Your task to perform on an android device: Go to accessibility settings Image 0: 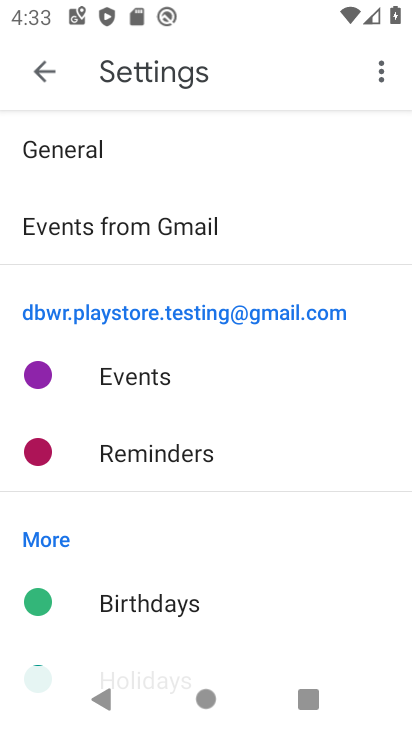
Step 0: press back button
Your task to perform on an android device: Go to accessibility settings Image 1: 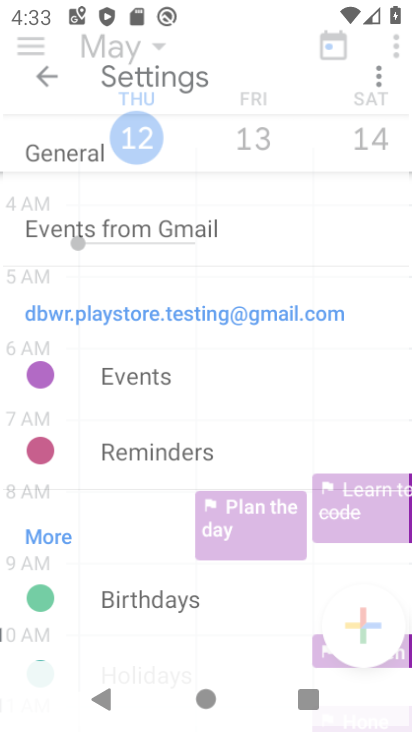
Step 1: press back button
Your task to perform on an android device: Go to accessibility settings Image 2: 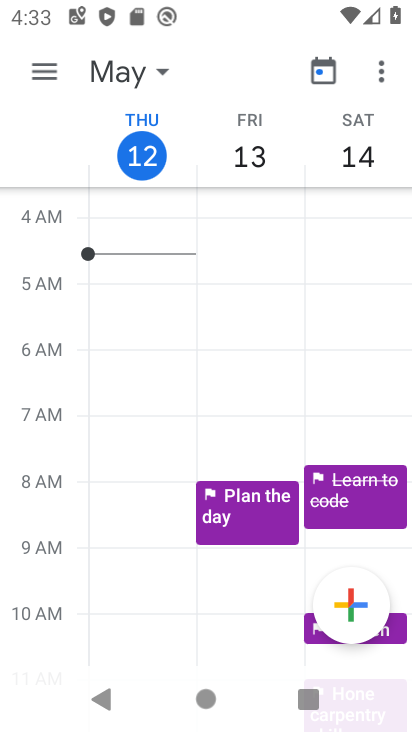
Step 2: press back button
Your task to perform on an android device: Go to accessibility settings Image 3: 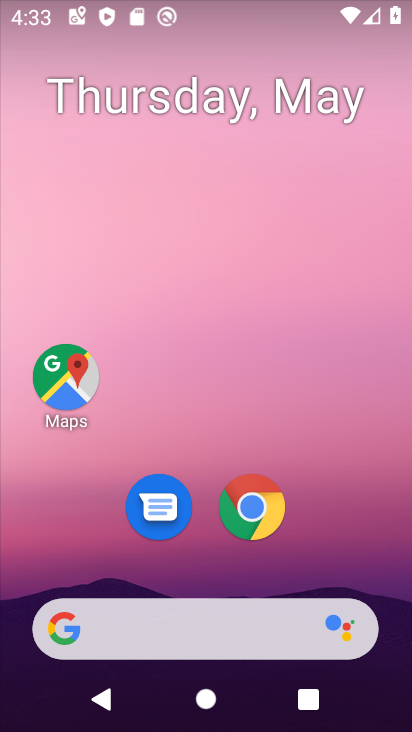
Step 3: press home button
Your task to perform on an android device: Go to accessibility settings Image 4: 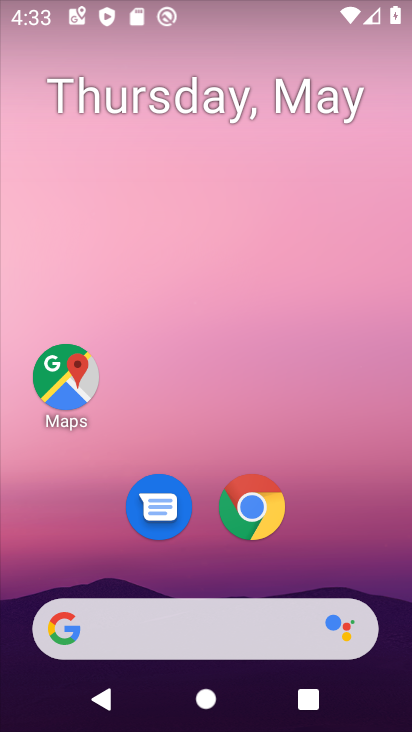
Step 4: drag from (362, 684) to (157, 177)
Your task to perform on an android device: Go to accessibility settings Image 5: 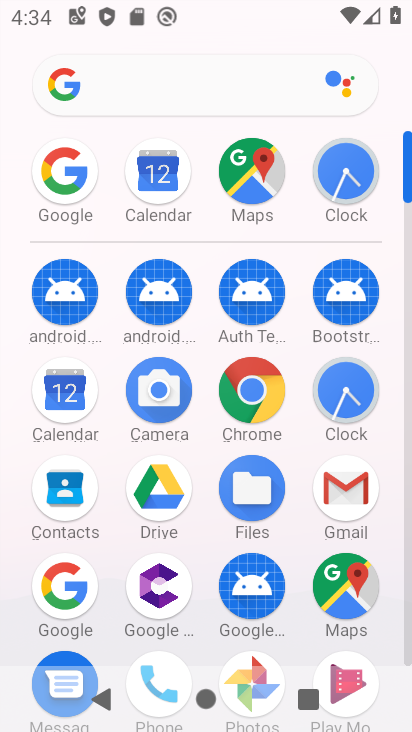
Step 5: click (203, 195)
Your task to perform on an android device: Go to accessibility settings Image 6: 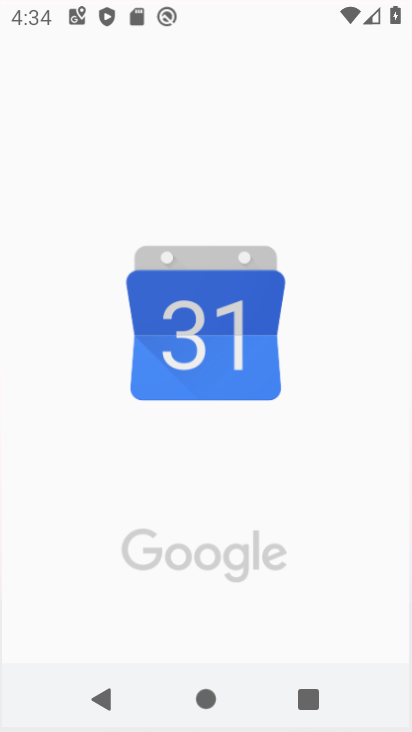
Step 6: click (191, 192)
Your task to perform on an android device: Go to accessibility settings Image 7: 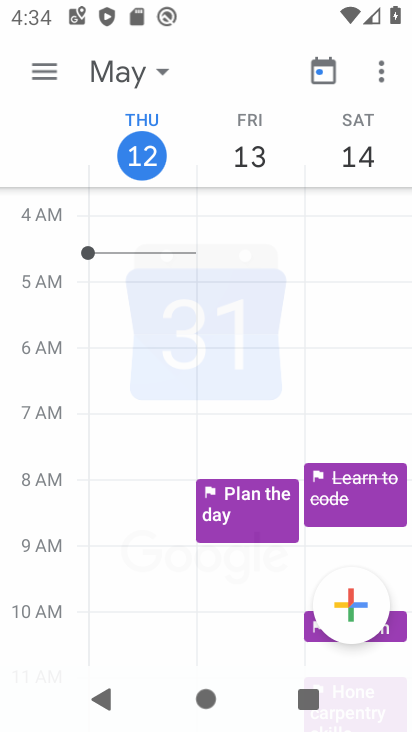
Step 7: drag from (176, 445) to (107, 248)
Your task to perform on an android device: Go to accessibility settings Image 8: 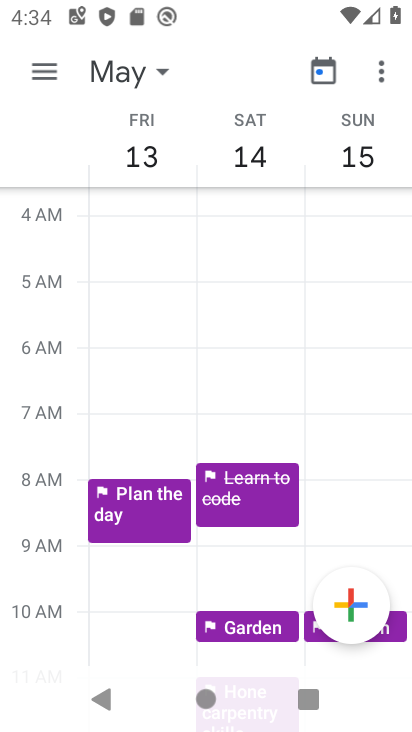
Step 8: press back button
Your task to perform on an android device: Go to accessibility settings Image 9: 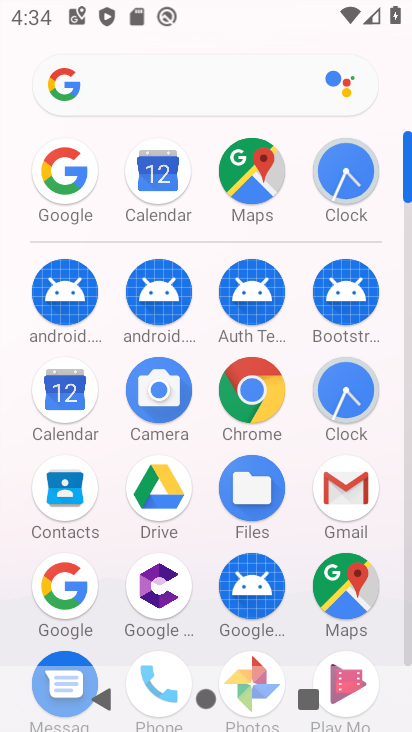
Step 9: drag from (210, 541) to (203, 146)
Your task to perform on an android device: Go to accessibility settings Image 10: 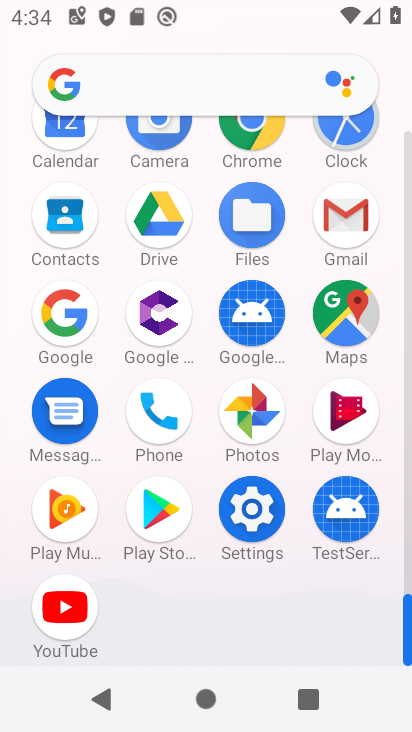
Step 10: click (237, 501)
Your task to perform on an android device: Go to accessibility settings Image 11: 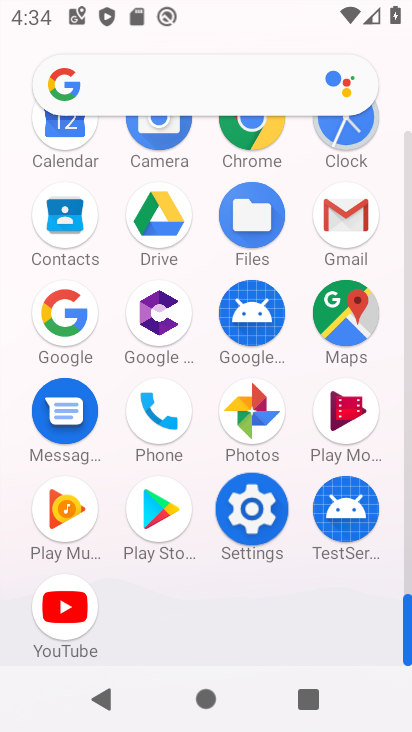
Step 11: click (239, 502)
Your task to perform on an android device: Go to accessibility settings Image 12: 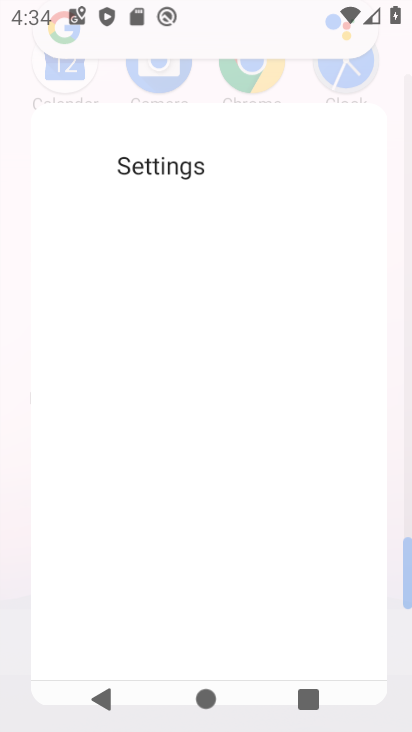
Step 12: click (239, 503)
Your task to perform on an android device: Go to accessibility settings Image 13: 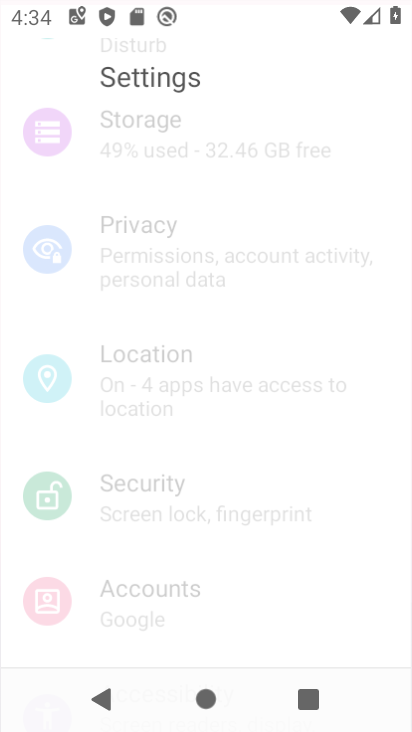
Step 13: click (239, 503)
Your task to perform on an android device: Go to accessibility settings Image 14: 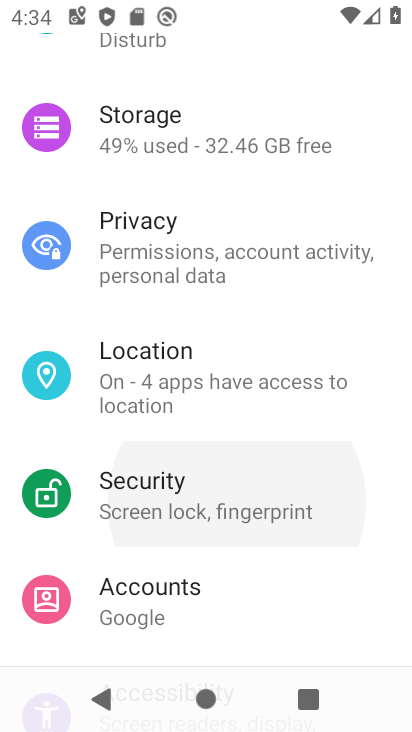
Step 14: click (239, 503)
Your task to perform on an android device: Go to accessibility settings Image 15: 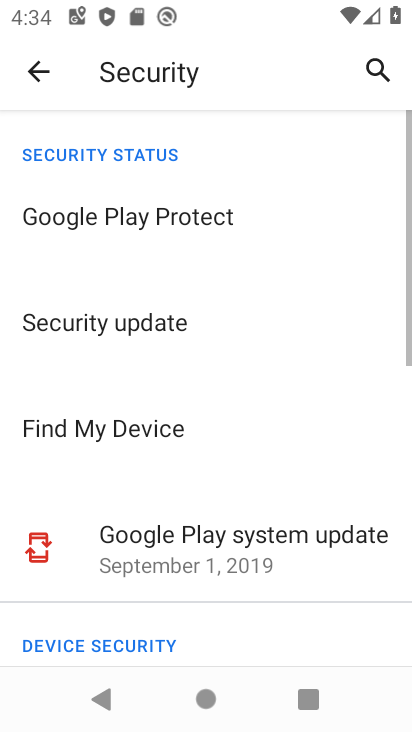
Step 15: drag from (174, 403) to (165, 151)
Your task to perform on an android device: Go to accessibility settings Image 16: 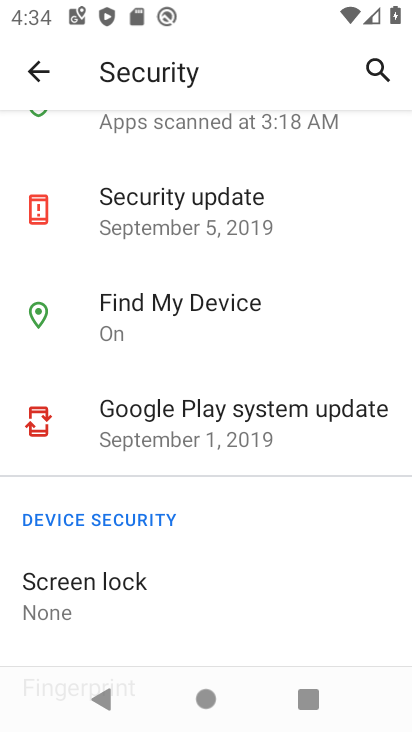
Step 16: click (40, 73)
Your task to perform on an android device: Go to accessibility settings Image 17: 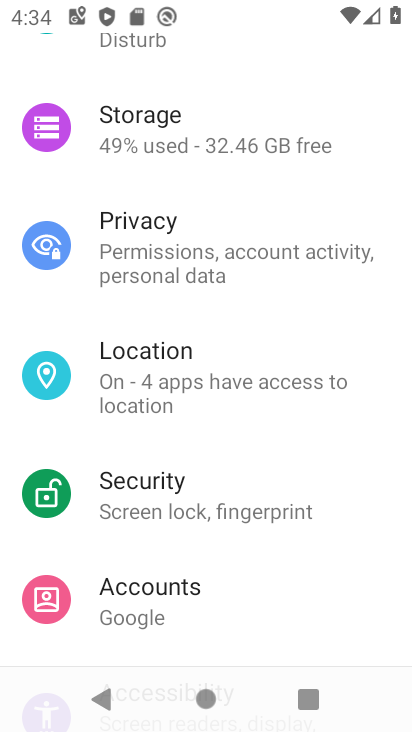
Step 17: drag from (189, 500) to (176, 217)
Your task to perform on an android device: Go to accessibility settings Image 18: 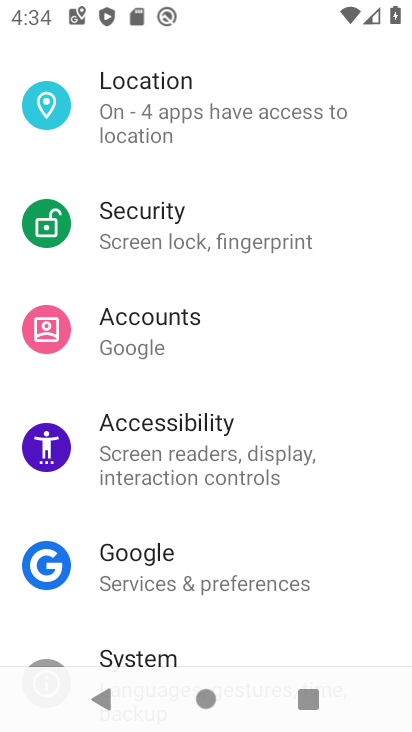
Step 18: drag from (229, 479) to (254, 218)
Your task to perform on an android device: Go to accessibility settings Image 19: 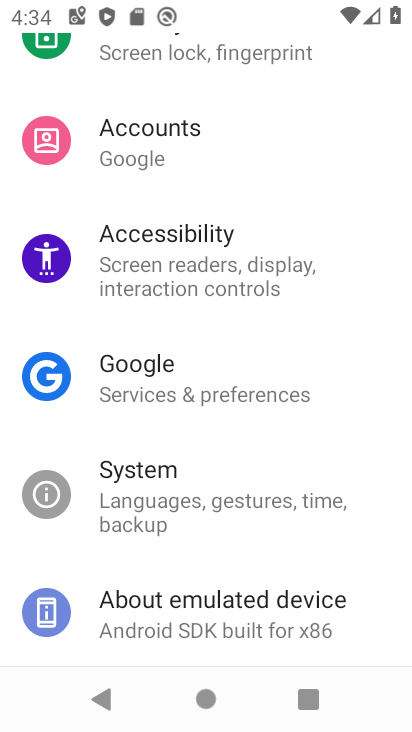
Step 19: click (160, 269)
Your task to perform on an android device: Go to accessibility settings Image 20: 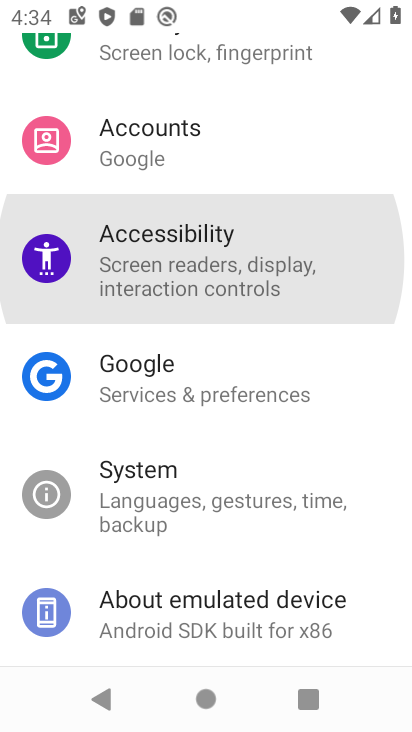
Step 20: click (160, 269)
Your task to perform on an android device: Go to accessibility settings Image 21: 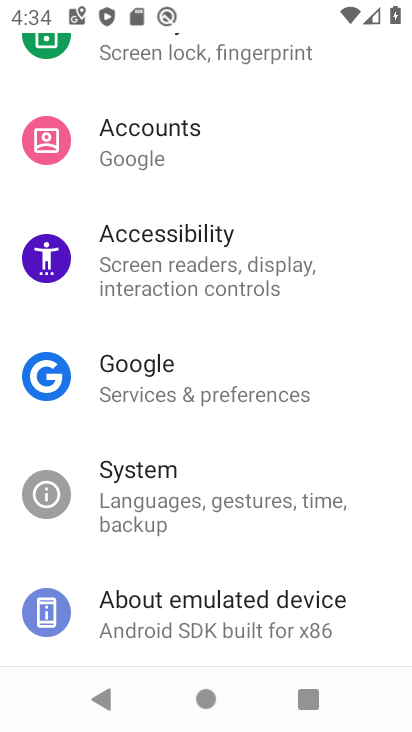
Step 21: click (160, 269)
Your task to perform on an android device: Go to accessibility settings Image 22: 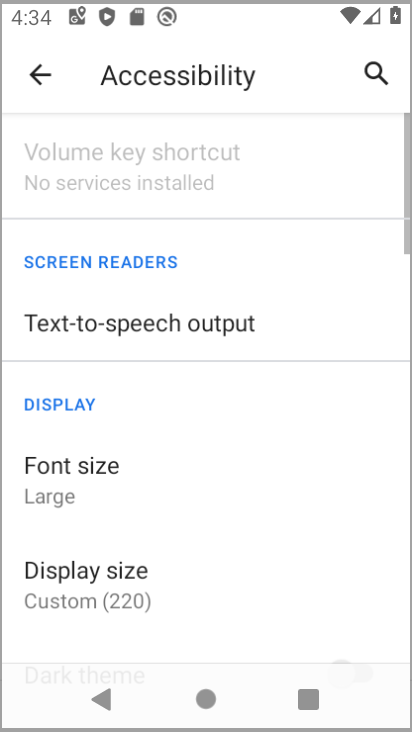
Step 22: click (160, 269)
Your task to perform on an android device: Go to accessibility settings Image 23: 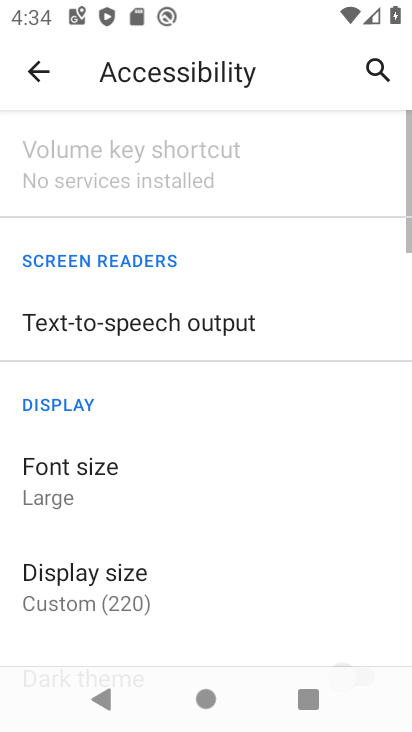
Step 23: click (160, 268)
Your task to perform on an android device: Go to accessibility settings Image 24: 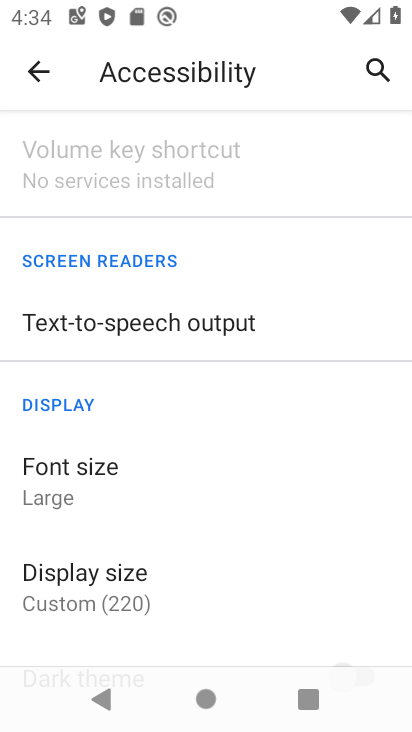
Step 24: task complete